Your task to perform on an android device: Open Google Image 0: 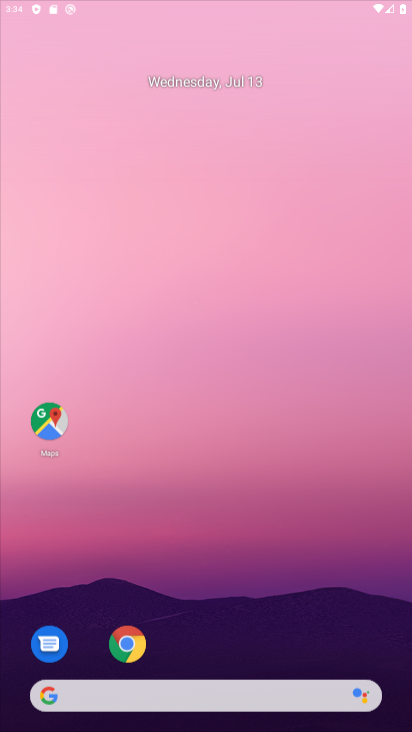
Step 0: drag from (236, 532) to (281, 34)
Your task to perform on an android device: Open Google Image 1: 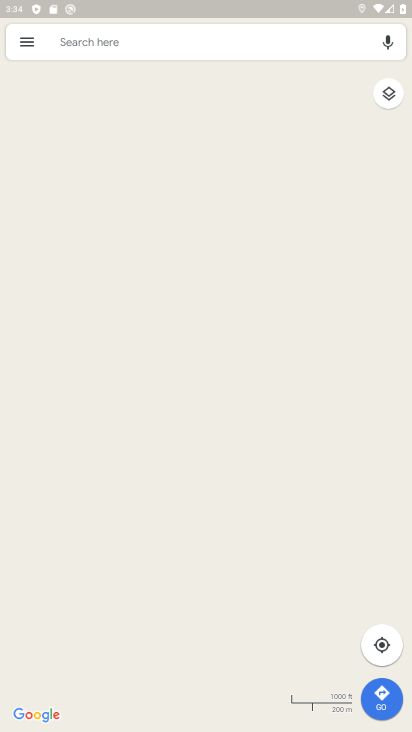
Step 1: press back button
Your task to perform on an android device: Open Google Image 2: 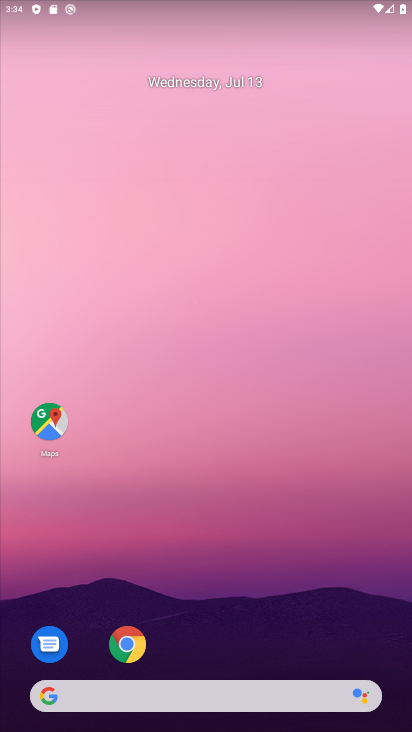
Step 2: drag from (180, 659) to (256, 42)
Your task to perform on an android device: Open Google Image 3: 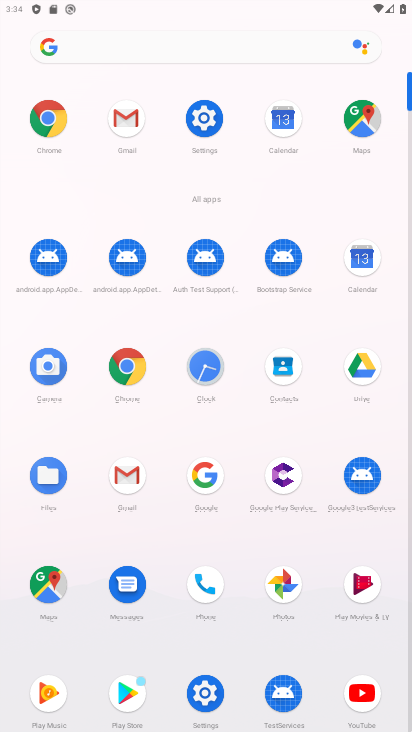
Step 3: click (200, 474)
Your task to perform on an android device: Open Google Image 4: 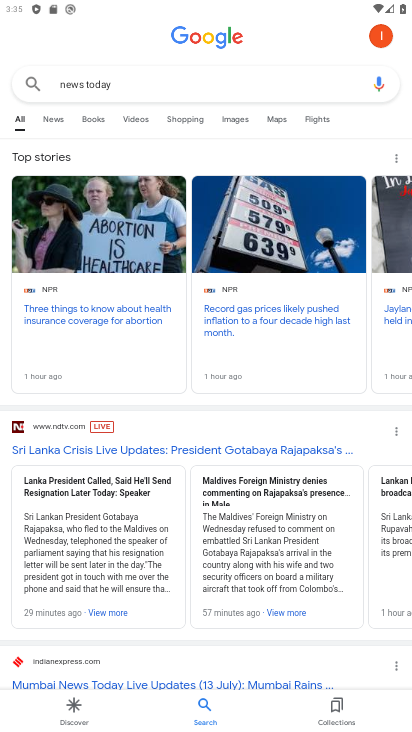
Step 4: task complete